Your task to perform on an android device: Turn on the flashlight Image 0: 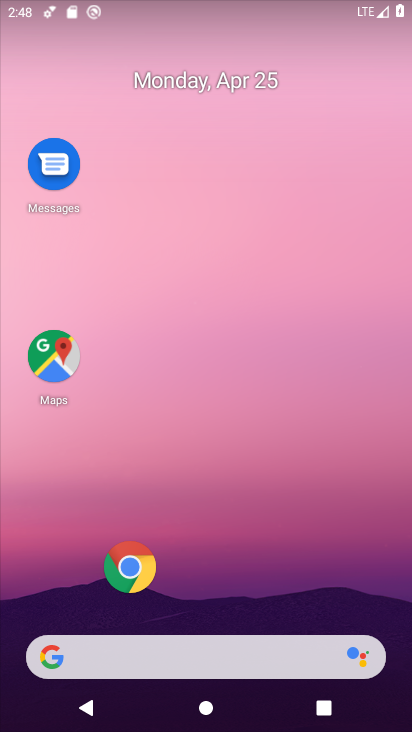
Step 0: drag from (287, 34) to (213, 426)
Your task to perform on an android device: Turn on the flashlight Image 1: 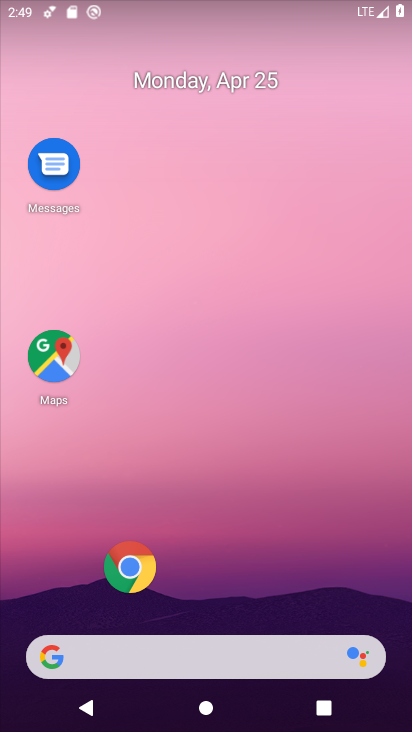
Step 1: drag from (303, 31) to (310, 452)
Your task to perform on an android device: Turn on the flashlight Image 2: 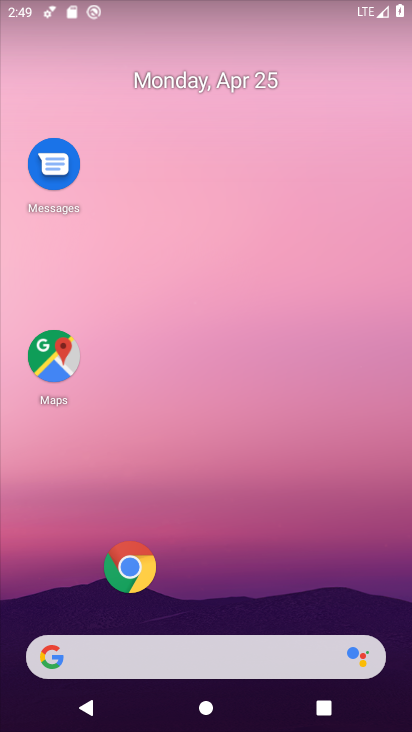
Step 2: click (310, 452)
Your task to perform on an android device: Turn on the flashlight Image 3: 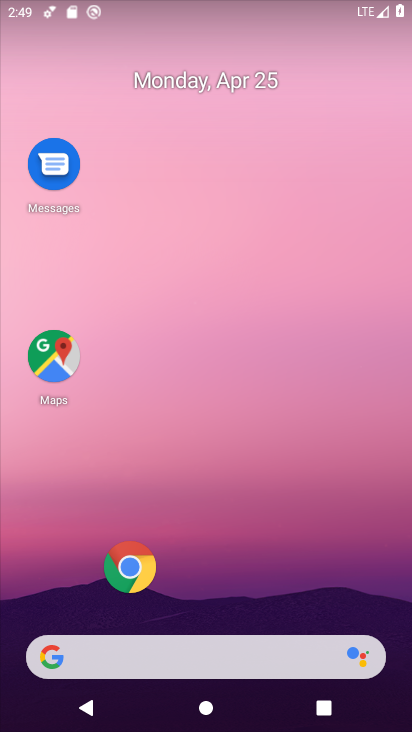
Step 3: task complete